Your task to perform on an android device: What's the weather? Image 0: 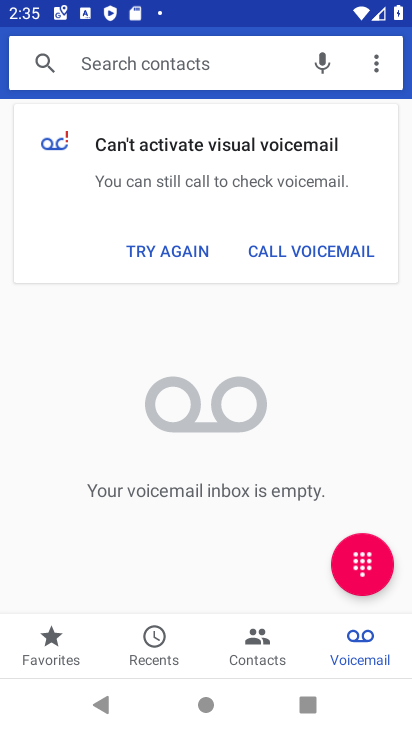
Step 0: press home button
Your task to perform on an android device: What's the weather? Image 1: 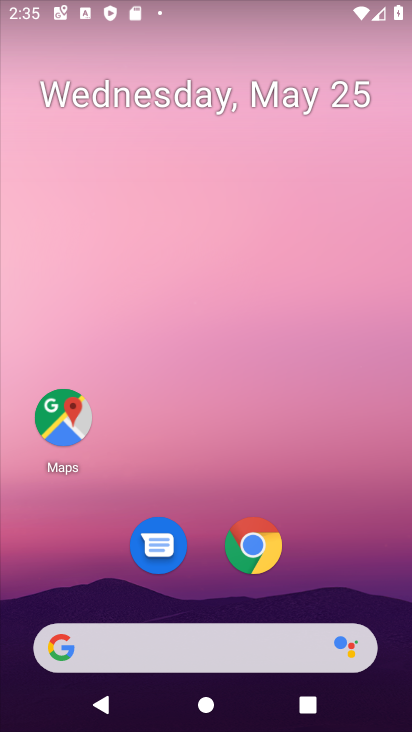
Step 1: click (220, 637)
Your task to perform on an android device: What's the weather? Image 2: 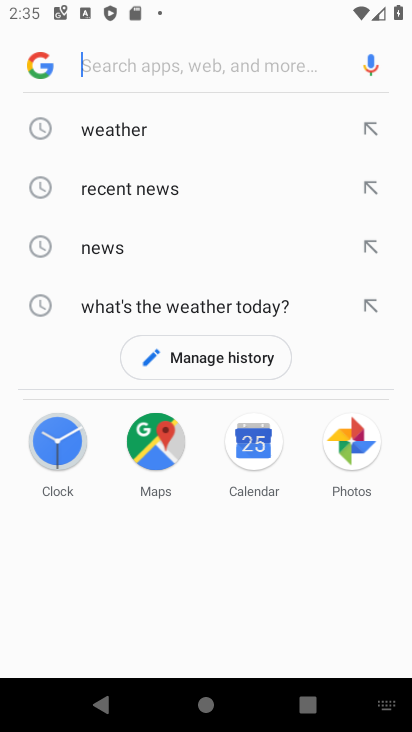
Step 2: click (120, 142)
Your task to perform on an android device: What's the weather? Image 3: 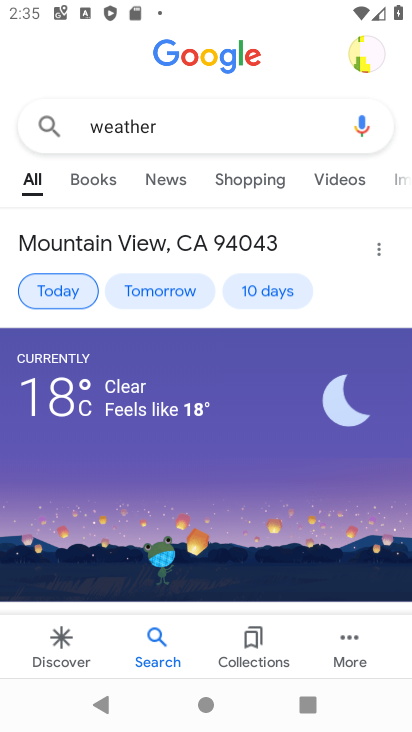
Step 3: task complete